Your task to perform on an android device: turn off priority inbox in the gmail app Image 0: 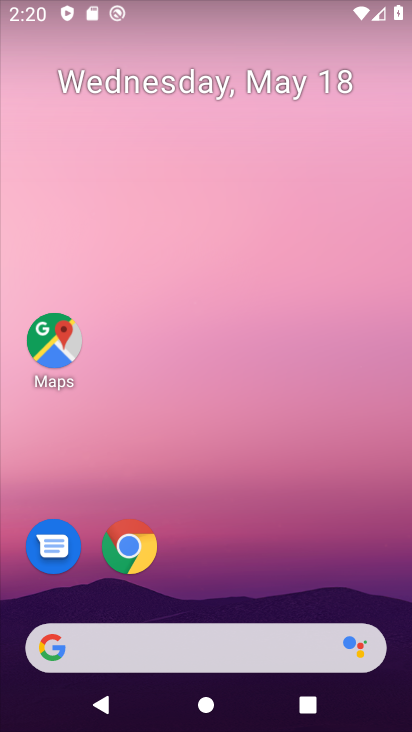
Step 0: drag from (221, 723) to (226, 178)
Your task to perform on an android device: turn off priority inbox in the gmail app Image 1: 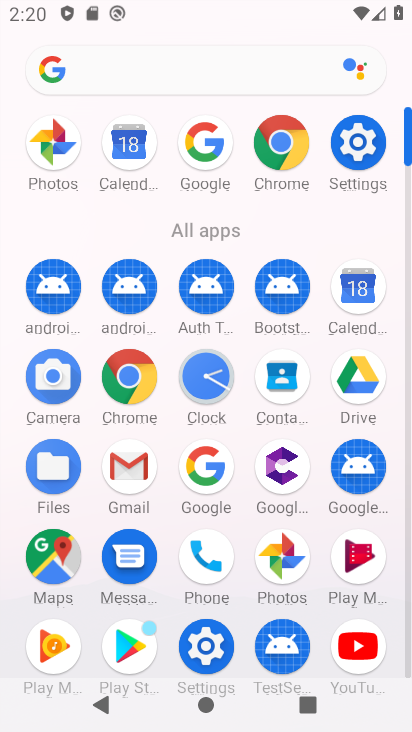
Step 1: click (137, 468)
Your task to perform on an android device: turn off priority inbox in the gmail app Image 2: 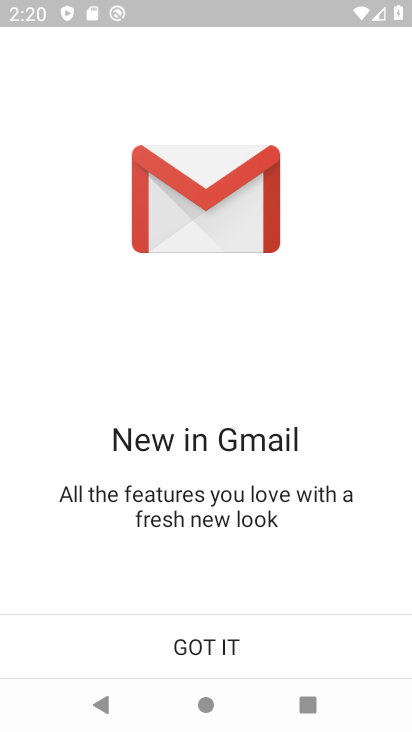
Step 2: click (217, 647)
Your task to perform on an android device: turn off priority inbox in the gmail app Image 3: 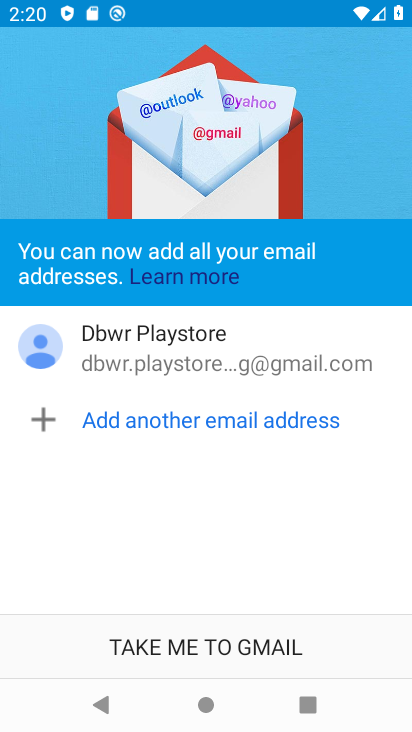
Step 3: click (199, 636)
Your task to perform on an android device: turn off priority inbox in the gmail app Image 4: 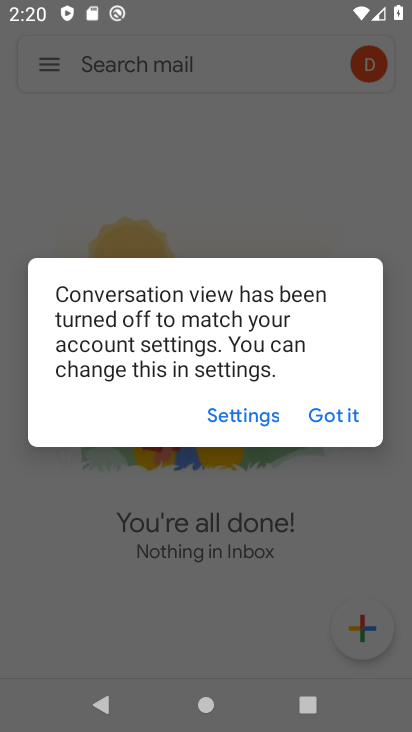
Step 4: click (331, 415)
Your task to perform on an android device: turn off priority inbox in the gmail app Image 5: 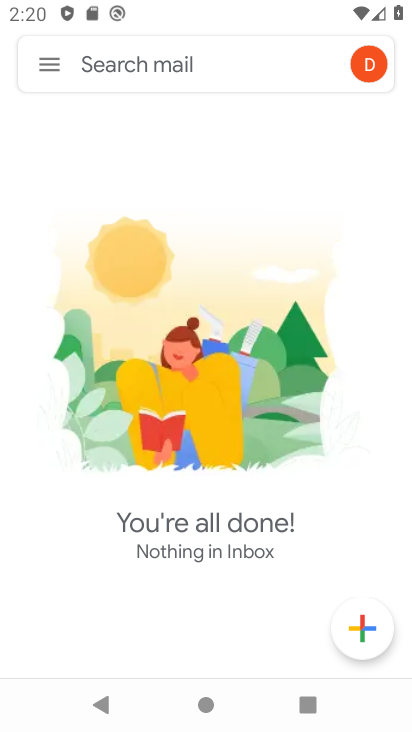
Step 5: click (47, 69)
Your task to perform on an android device: turn off priority inbox in the gmail app Image 6: 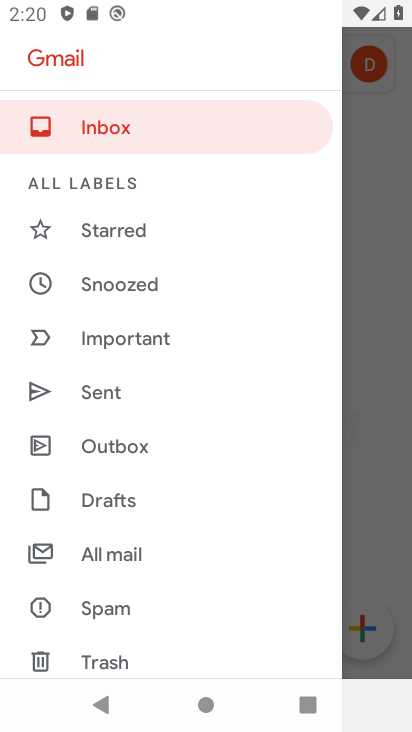
Step 6: drag from (126, 636) to (125, 227)
Your task to perform on an android device: turn off priority inbox in the gmail app Image 7: 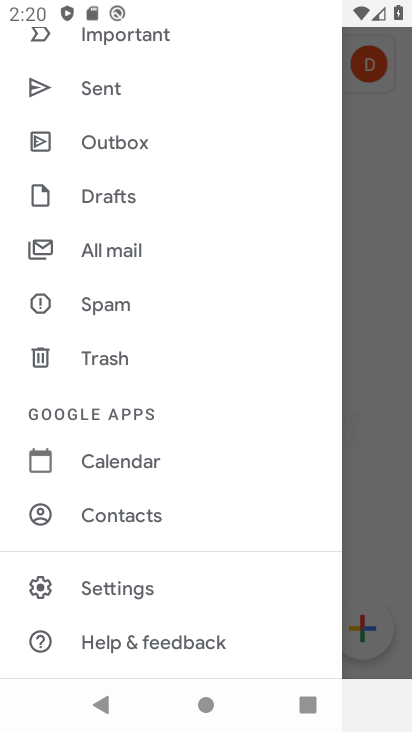
Step 7: click (117, 584)
Your task to perform on an android device: turn off priority inbox in the gmail app Image 8: 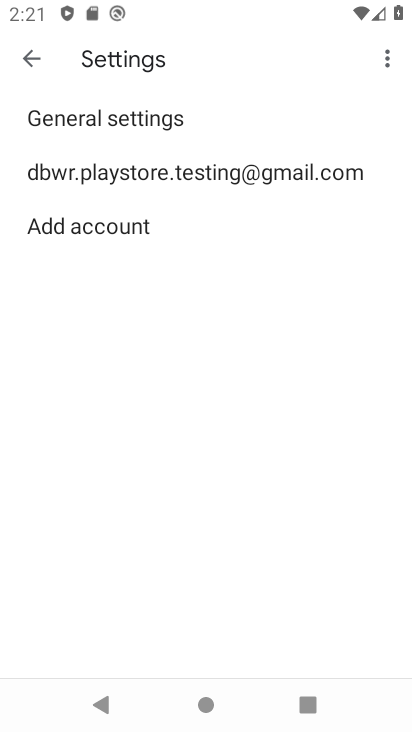
Step 8: click (203, 172)
Your task to perform on an android device: turn off priority inbox in the gmail app Image 9: 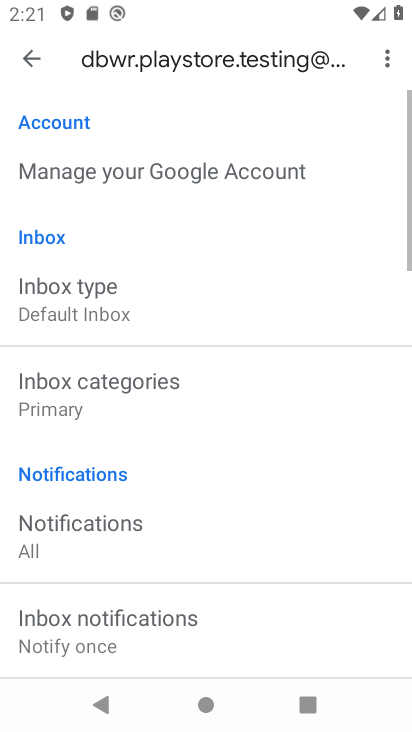
Step 9: task complete